Your task to perform on an android device: Show me popular videos on Youtube Image 0: 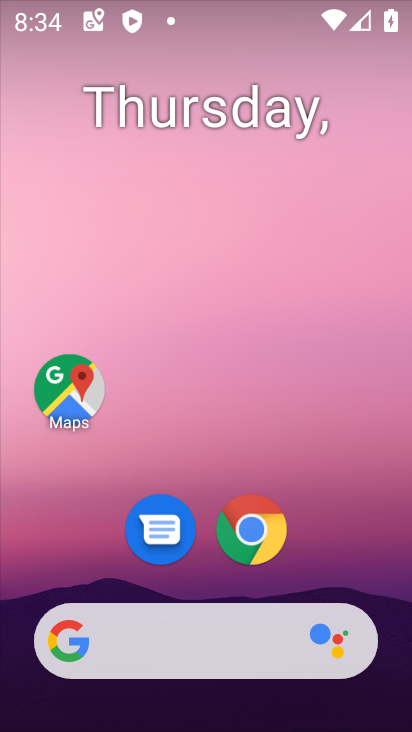
Step 0: drag from (236, 721) to (213, 77)
Your task to perform on an android device: Show me popular videos on Youtube Image 1: 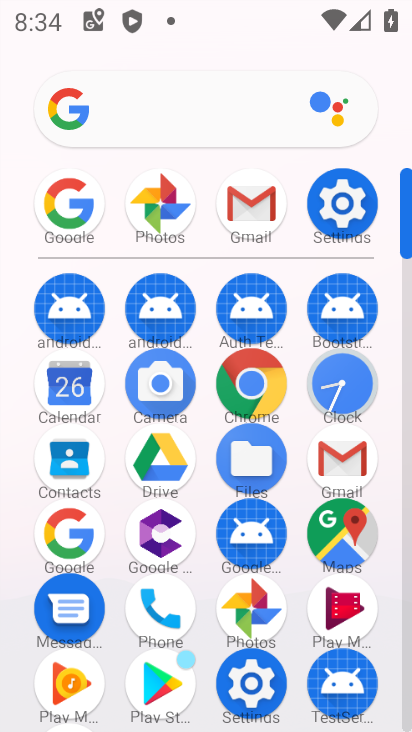
Step 1: drag from (219, 671) to (203, 173)
Your task to perform on an android device: Show me popular videos on Youtube Image 2: 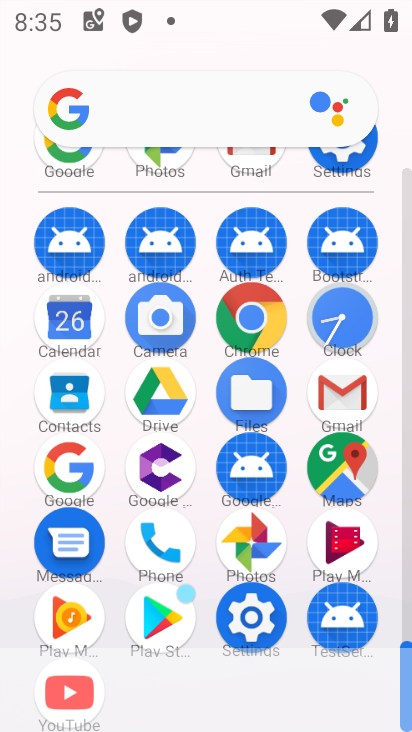
Step 2: click (70, 680)
Your task to perform on an android device: Show me popular videos on Youtube Image 3: 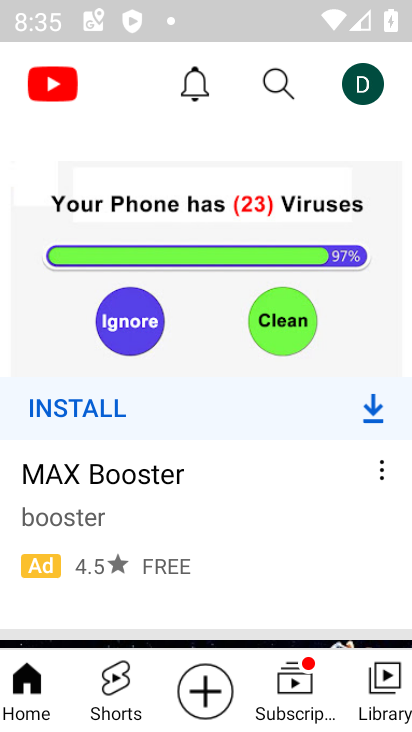
Step 3: click (283, 79)
Your task to perform on an android device: Show me popular videos on Youtube Image 4: 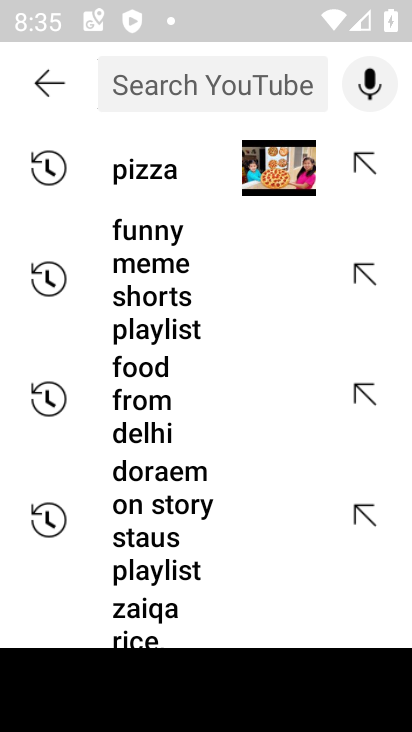
Step 4: type "popular videos on youtube"
Your task to perform on an android device: Show me popular videos on Youtube Image 5: 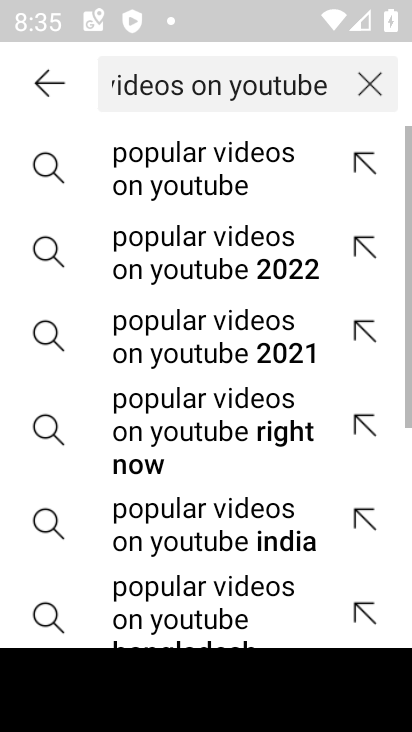
Step 5: click (156, 166)
Your task to perform on an android device: Show me popular videos on Youtube Image 6: 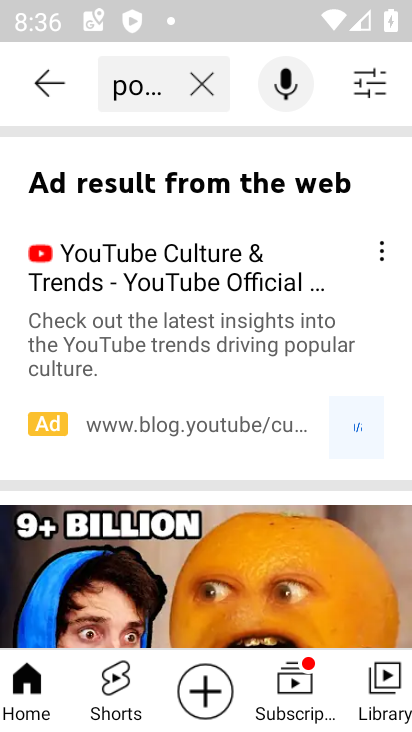
Step 6: task complete